Your task to perform on an android device: find photos in the google photos app Image 0: 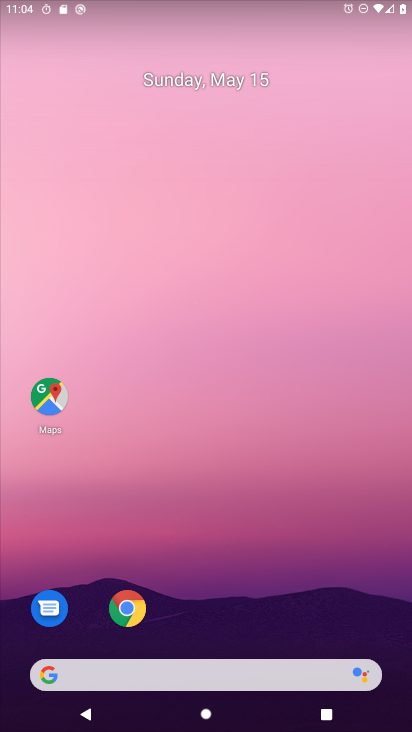
Step 0: drag from (353, 626) to (352, 231)
Your task to perform on an android device: find photos in the google photos app Image 1: 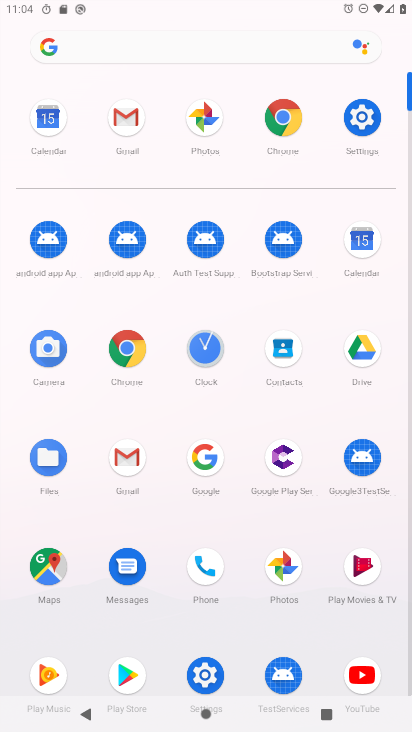
Step 1: drag from (225, 637) to (260, 258)
Your task to perform on an android device: find photos in the google photos app Image 2: 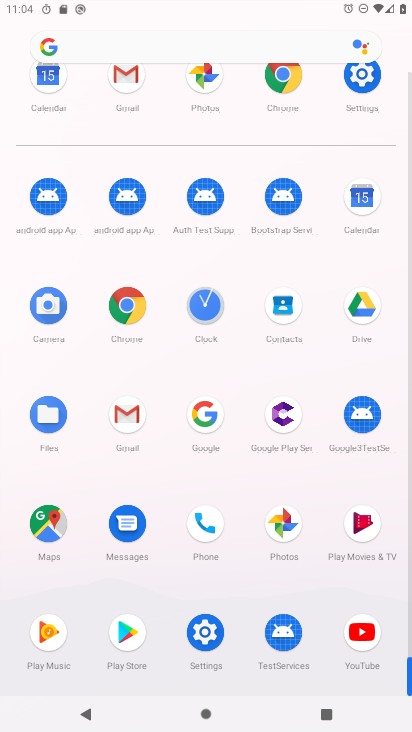
Step 2: click (273, 524)
Your task to perform on an android device: find photos in the google photos app Image 3: 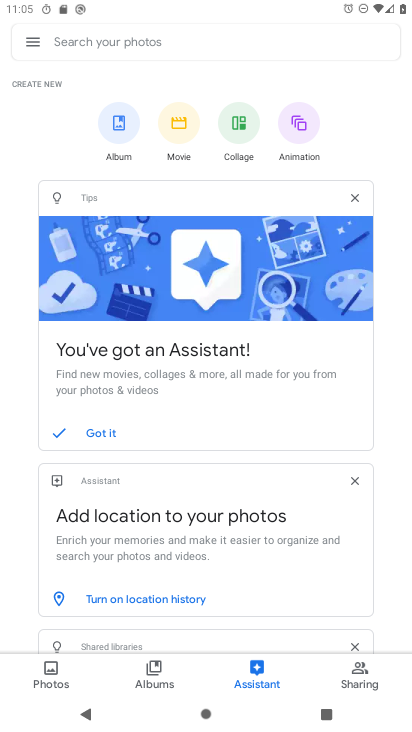
Step 3: task complete